Your task to perform on an android device: Open the Play Movies app and select the watchlist tab. Image 0: 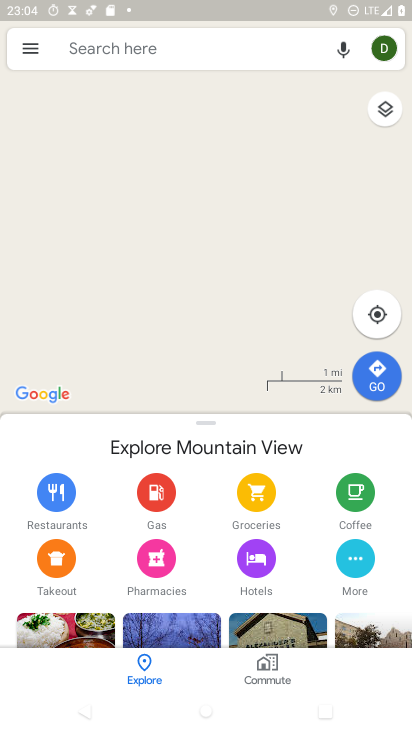
Step 0: press back button
Your task to perform on an android device: Open the Play Movies app and select the watchlist tab. Image 1: 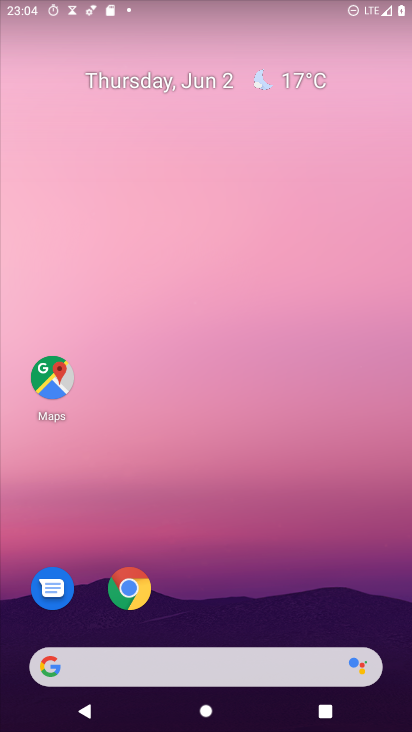
Step 1: drag from (209, 606) to (266, 88)
Your task to perform on an android device: Open the Play Movies app and select the watchlist tab. Image 2: 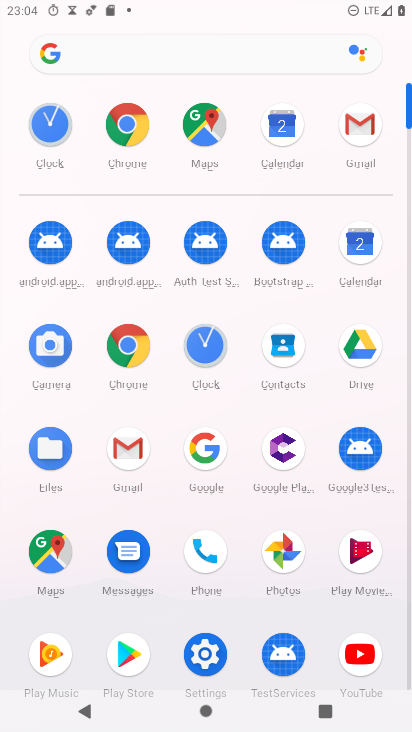
Step 2: click (369, 565)
Your task to perform on an android device: Open the Play Movies app and select the watchlist tab. Image 3: 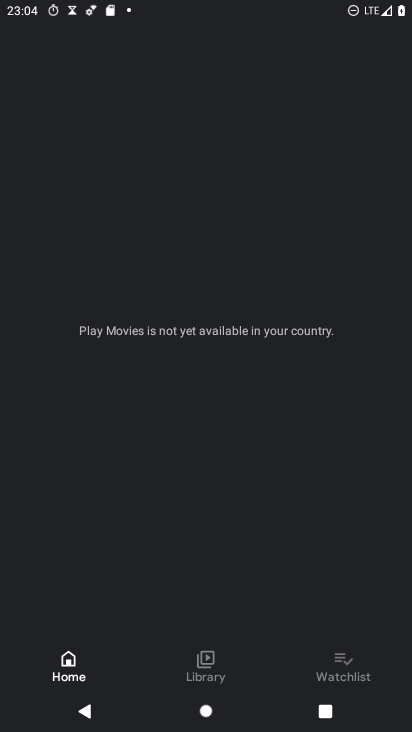
Step 3: click (340, 674)
Your task to perform on an android device: Open the Play Movies app and select the watchlist tab. Image 4: 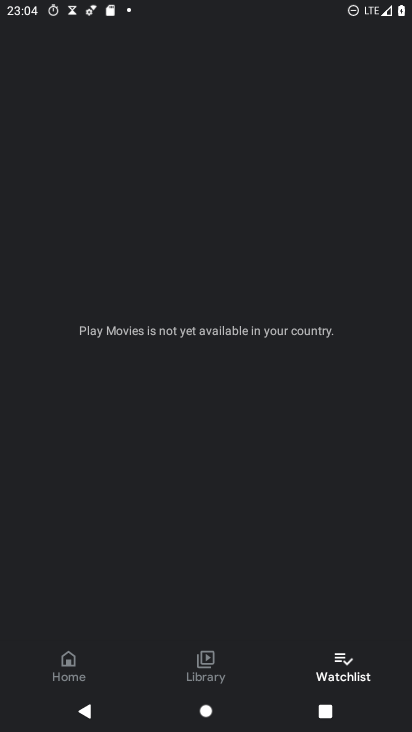
Step 4: click (340, 667)
Your task to perform on an android device: Open the Play Movies app and select the watchlist tab. Image 5: 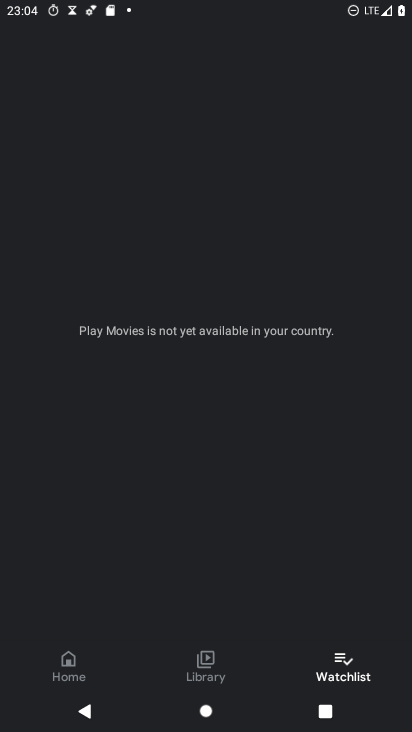
Step 5: task complete